Your task to perform on an android device: check google app version Image 0: 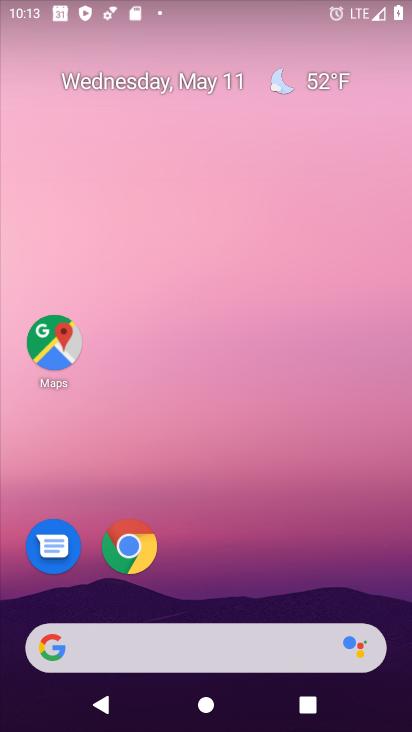
Step 0: drag from (195, 647) to (125, 81)
Your task to perform on an android device: check google app version Image 1: 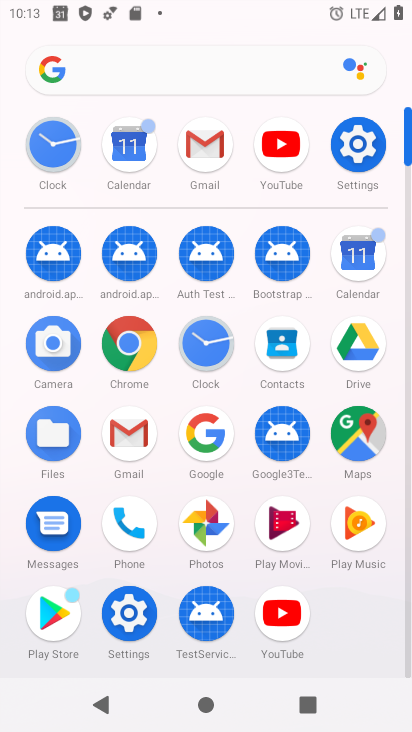
Step 1: click (193, 428)
Your task to perform on an android device: check google app version Image 2: 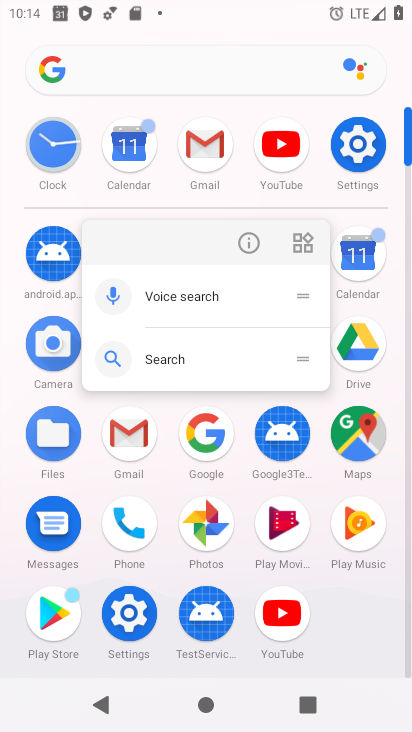
Step 2: click (243, 251)
Your task to perform on an android device: check google app version Image 3: 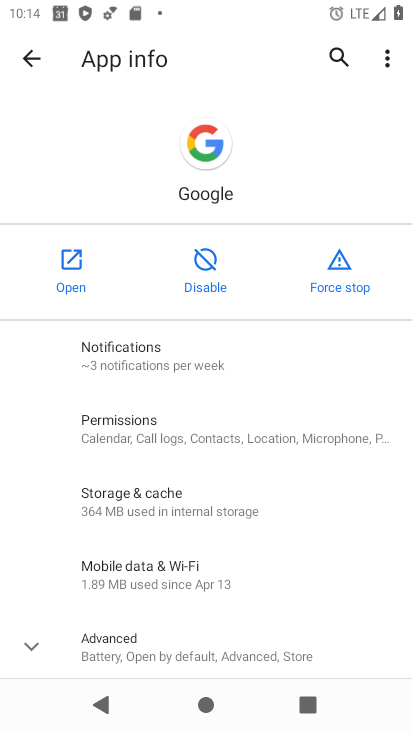
Step 3: drag from (237, 630) to (200, 111)
Your task to perform on an android device: check google app version Image 4: 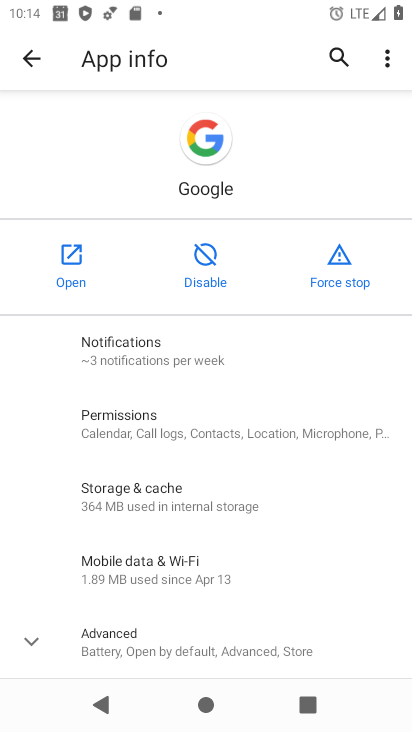
Step 4: click (148, 663)
Your task to perform on an android device: check google app version Image 5: 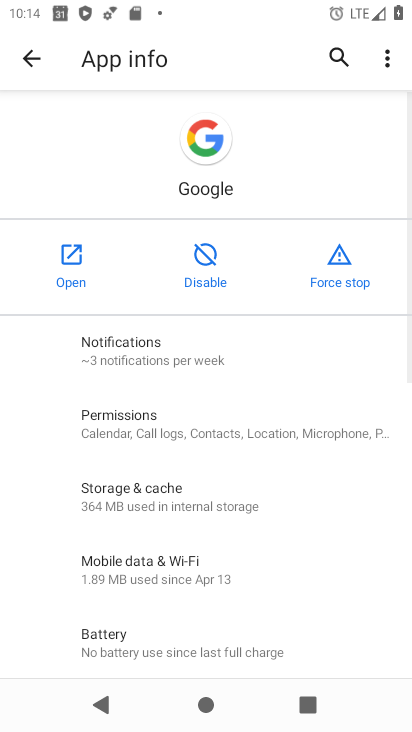
Step 5: task complete